Your task to perform on an android device: Open Google Maps and go to "Timeline" Image 0: 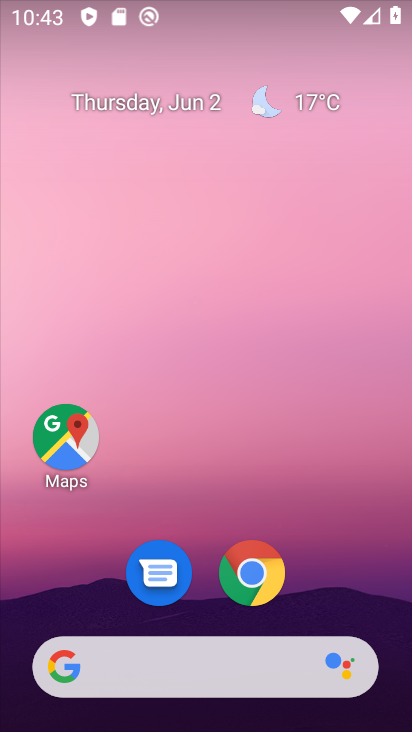
Step 0: task complete